Your task to perform on an android device: Do I have any events this weekend? Image 0: 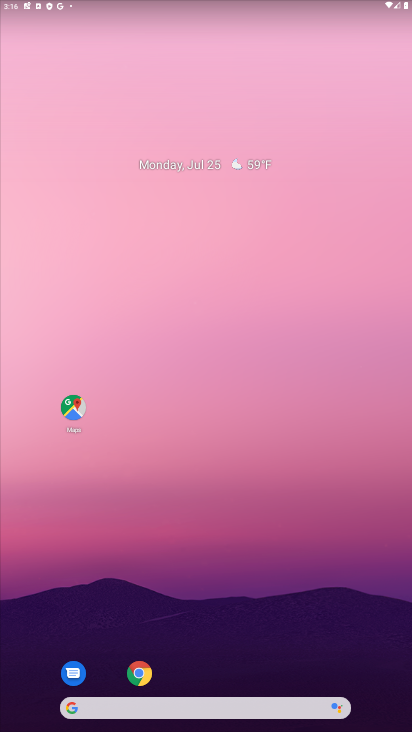
Step 0: click (155, 178)
Your task to perform on an android device: Do I have any events this weekend? Image 1: 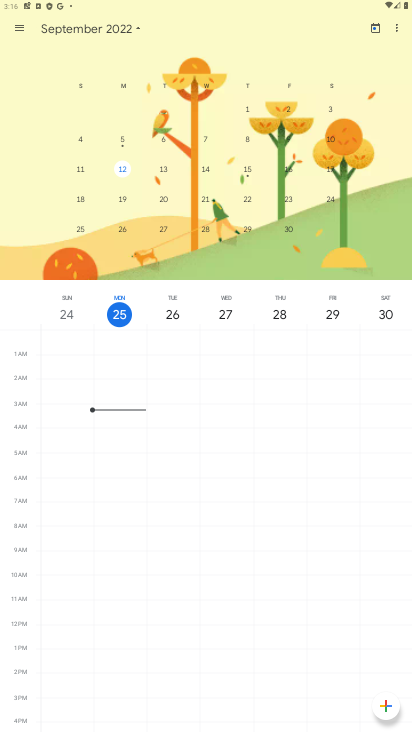
Step 1: click (333, 172)
Your task to perform on an android device: Do I have any events this weekend? Image 2: 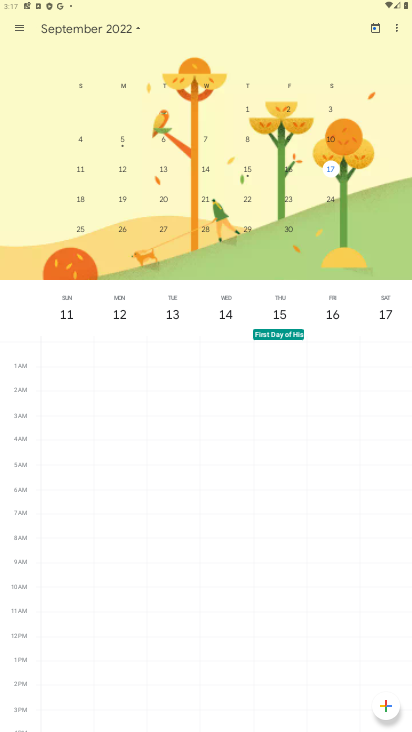
Step 2: task complete